Your task to perform on an android device: Open maps Image 0: 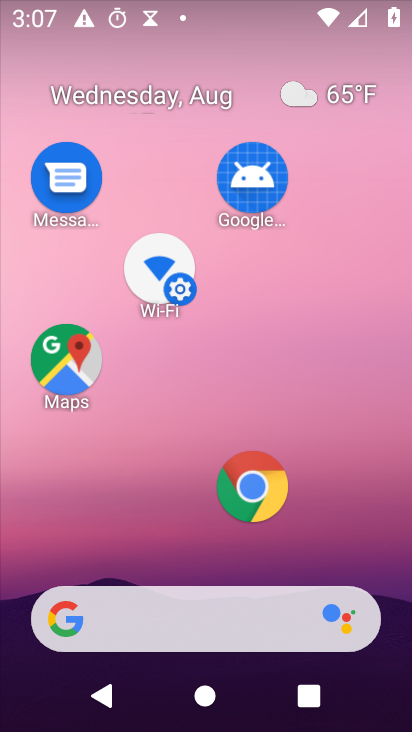
Step 0: click (67, 377)
Your task to perform on an android device: Open maps Image 1: 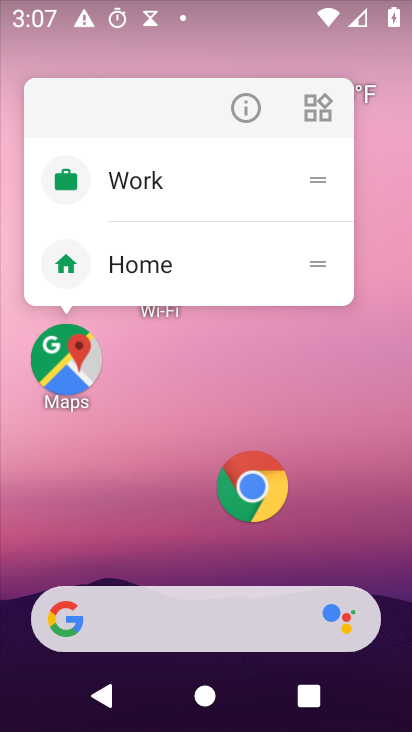
Step 1: click (67, 377)
Your task to perform on an android device: Open maps Image 2: 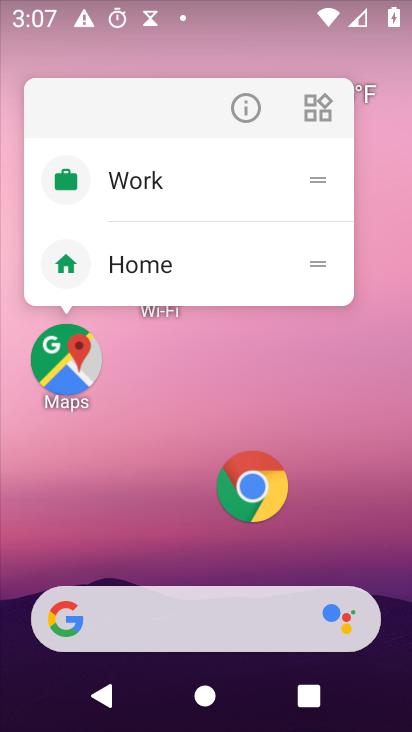
Step 2: click (59, 368)
Your task to perform on an android device: Open maps Image 3: 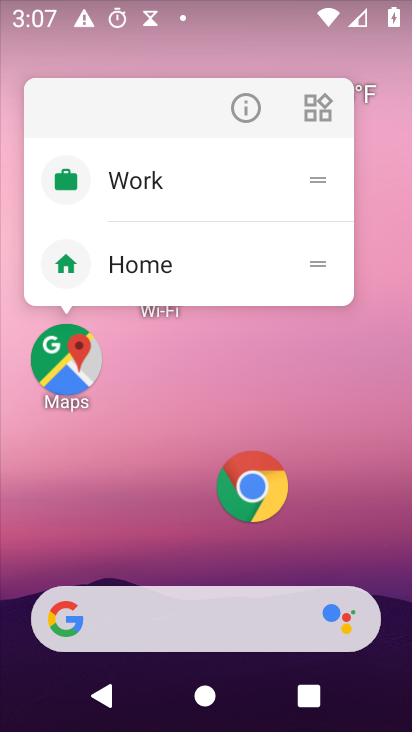
Step 3: click (59, 368)
Your task to perform on an android device: Open maps Image 4: 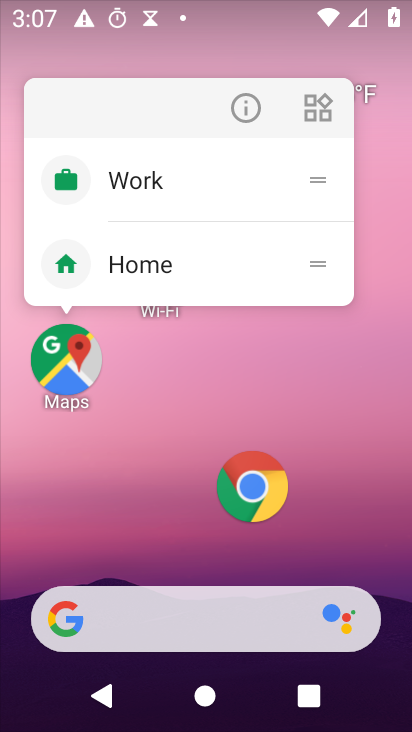
Step 4: click (376, 362)
Your task to perform on an android device: Open maps Image 5: 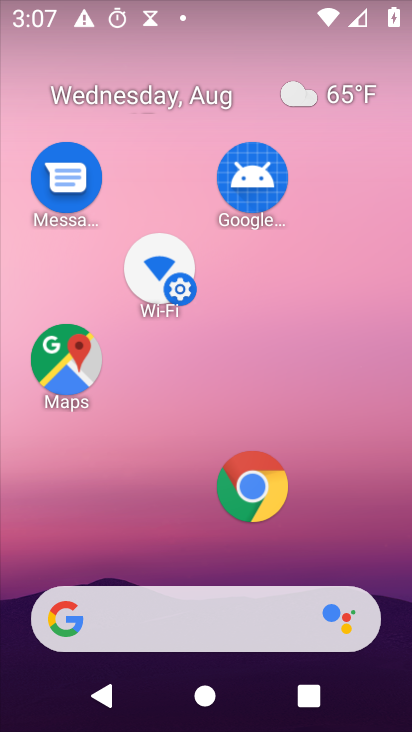
Step 5: click (59, 374)
Your task to perform on an android device: Open maps Image 6: 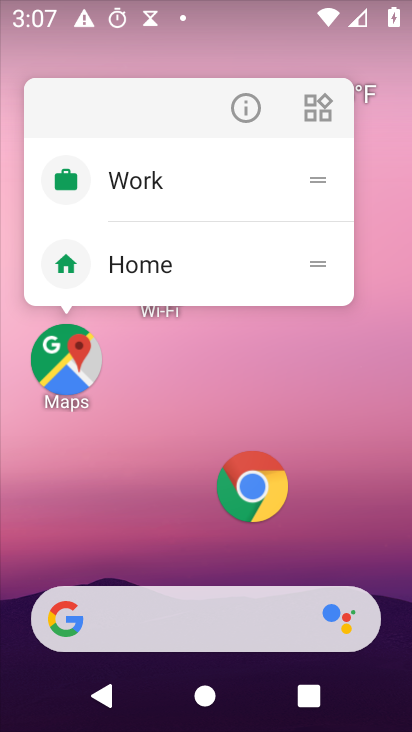
Step 6: click (59, 374)
Your task to perform on an android device: Open maps Image 7: 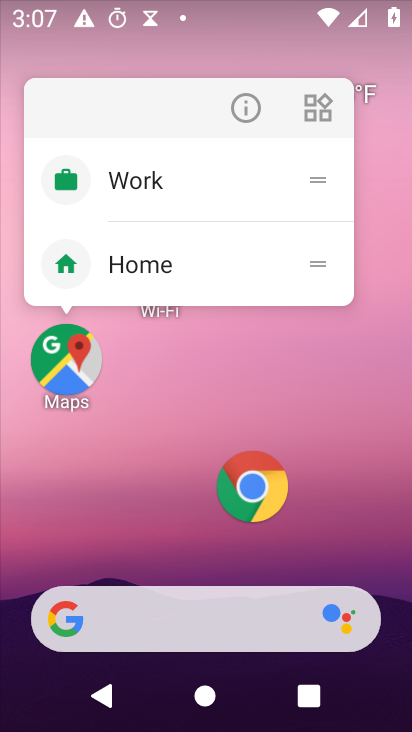
Step 7: click (59, 374)
Your task to perform on an android device: Open maps Image 8: 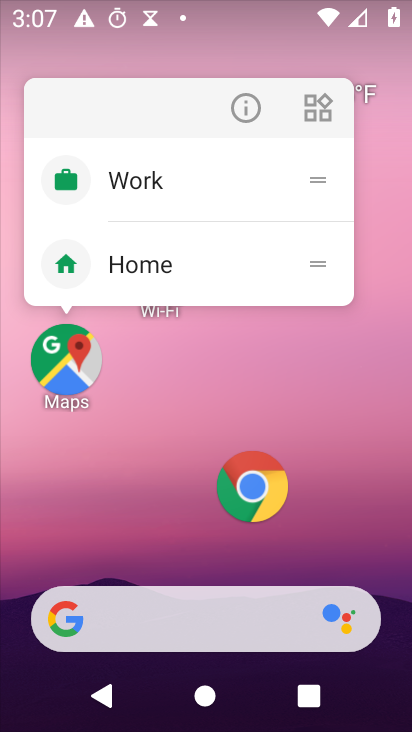
Step 8: click (59, 374)
Your task to perform on an android device: Open maps Image 9: 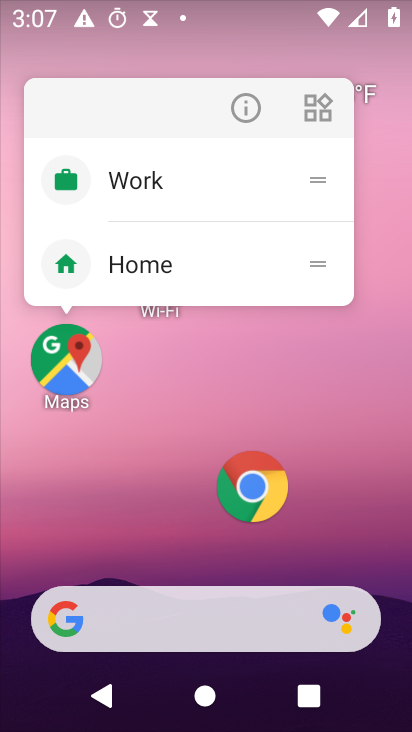
Step 9: click (59, 374)
Your task to perform on an android device: Open maps Image 10: 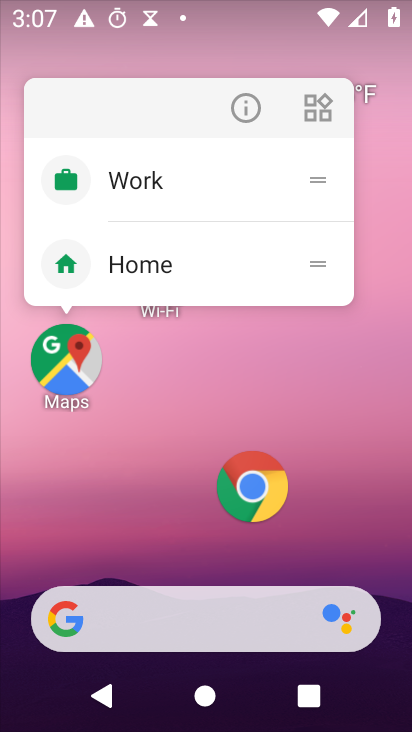
Step 10: click (59, 374)
Your task to perform on an android device: Open maps Image 11: 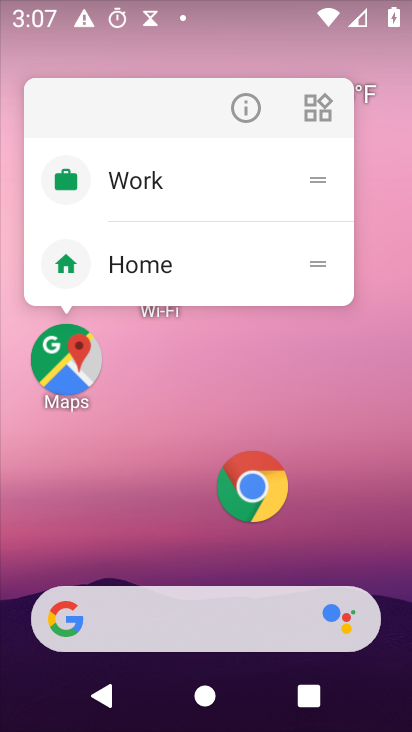
Step 11: click (66, 375)
Your task to perform on an android device: Open maps Image 12: 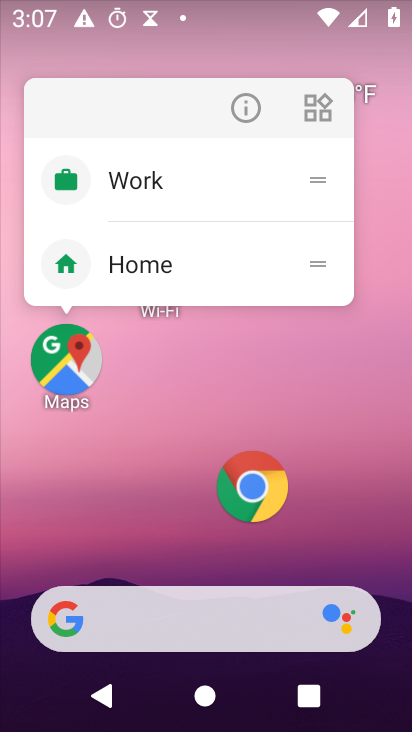
Step 12: click (66, 375)
Your task to perform on an android device: Open maps Image 13: 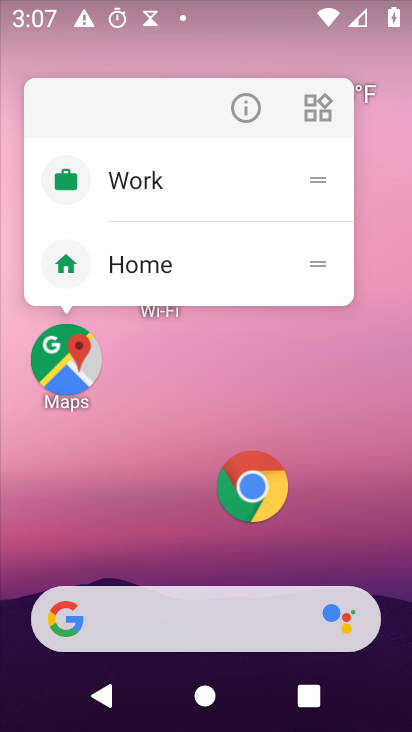
Step 13: click (61, 345)
Your task to perform on an android device: Open maps Image 14: 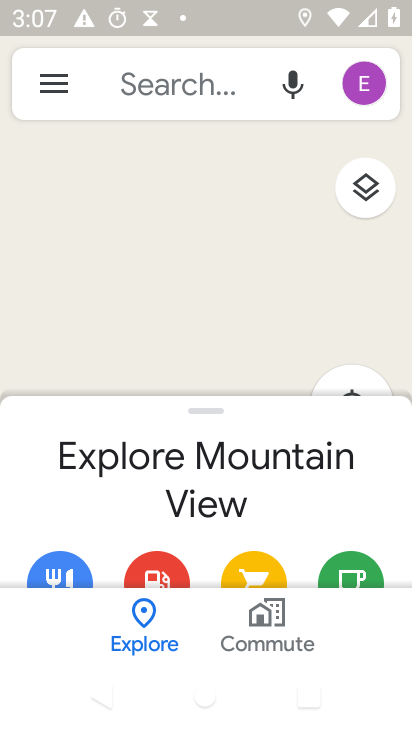
Step 14: task complete